Your task to perform on an android device: What's on my calendar today? Image 0: 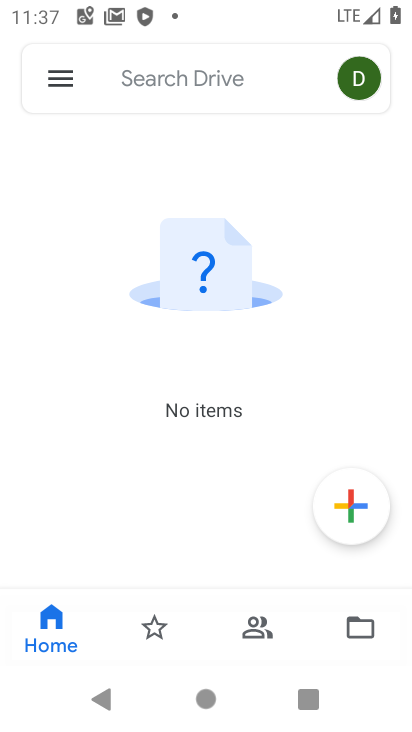
Step 0: press home button
Your task to perform on an android device: What's on my calendar today? Image 1: 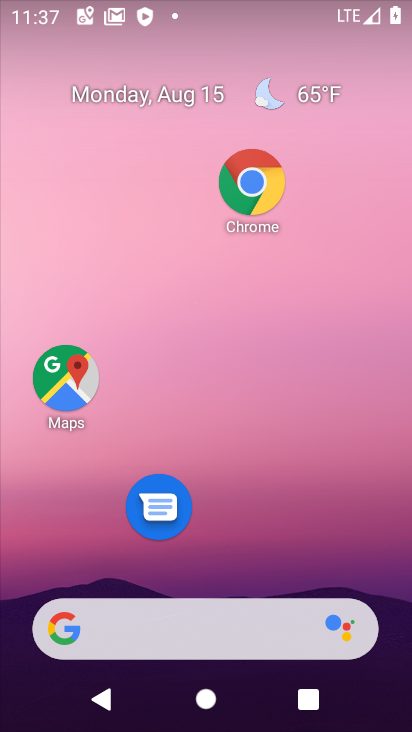
Step 1: drag from (294, 569) to (305, 70)
Your task to perform on an android device: What's on my calendar today? Image 2: 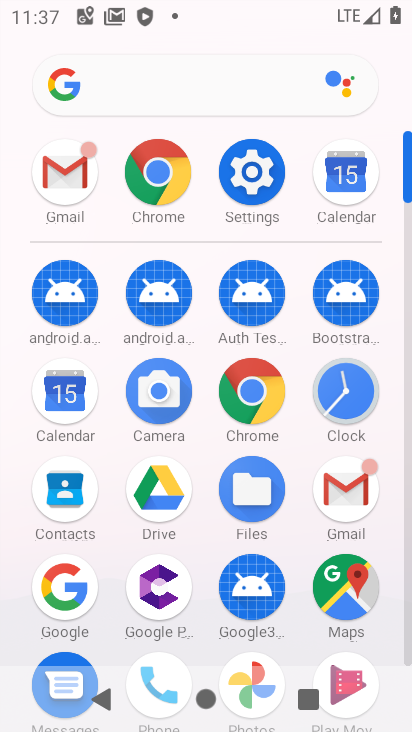
Step 2: click (328, 191)
Your task to perform on an android device: What's on my calendar today? Image 3: 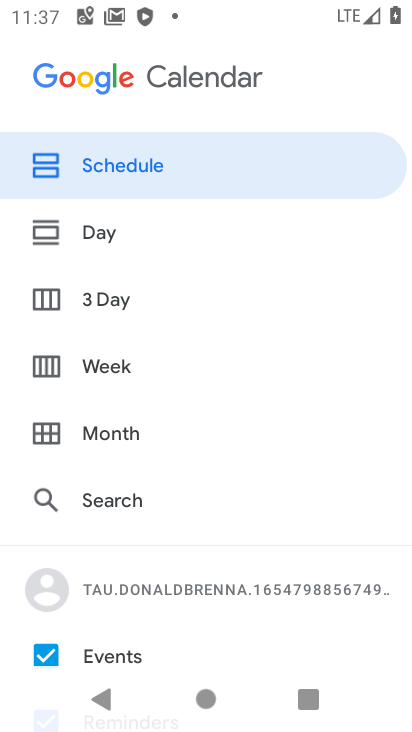
Step 3: task complete